Your task to perform on an android device: Open Google Maps Image 0: 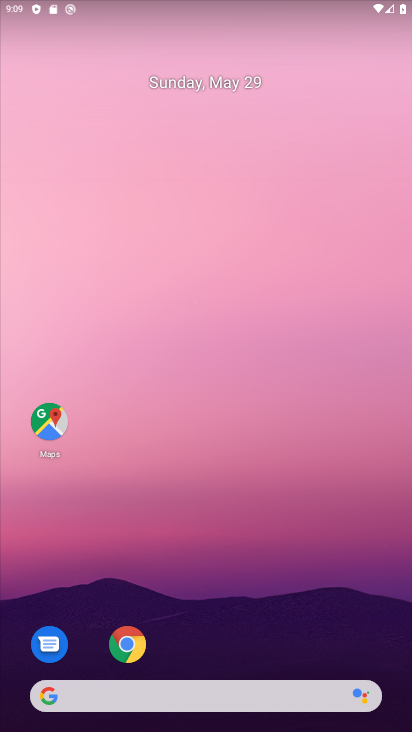
Step 0: click (55, 434)
Your task to perform on an android device: Open Google Maps Image 1: 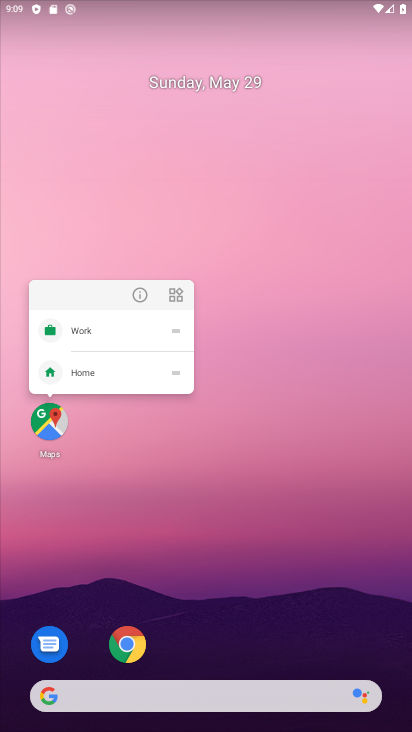
Step 1: click (42, 431)
Your task to perform on an android device: Open Google Maps Image 2: 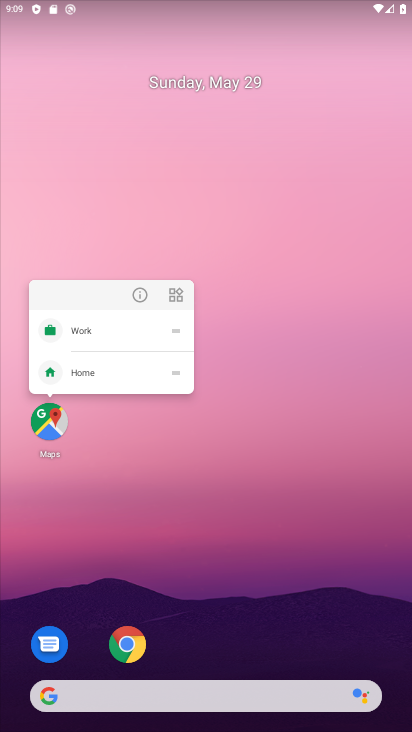
Step 2: click (42, 431)
Your task to perform on an android device: Open Google Maps Image 3: 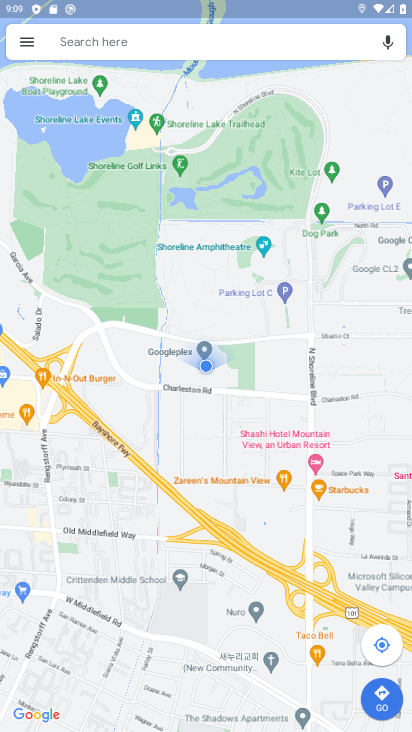
Step 3: task complete